Your task to perform on an android device: turn off location Image 0: 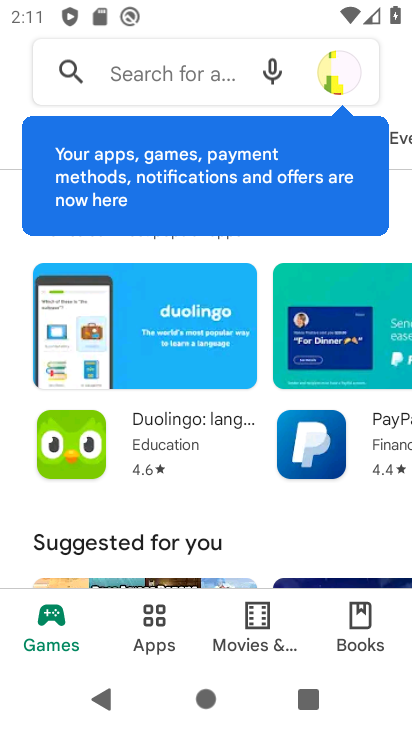
Step 0: press home button
Your task to perform on an android device: turn off location Image 1: 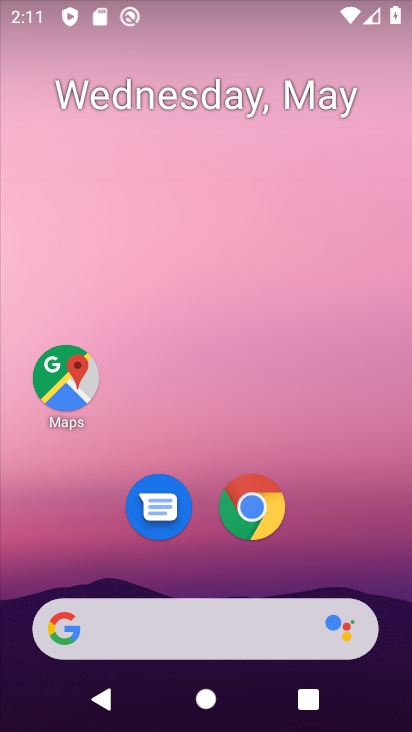
Step 1: drag from (389, 526) to (362, 187)
Your task to perform on an android device: turn off location Image 2: 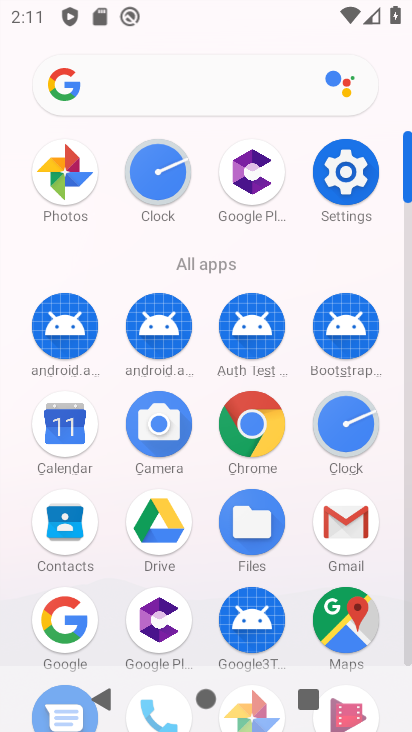
Step 2: click (345, 187)
Your task to perform on an android device: turn off location Image 3: 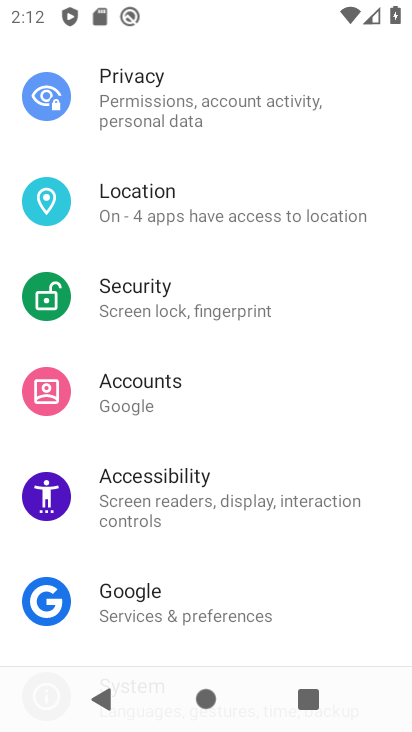
Step 3: click (175, 214)
Your task to perform on an android device: turn off location Image 4: 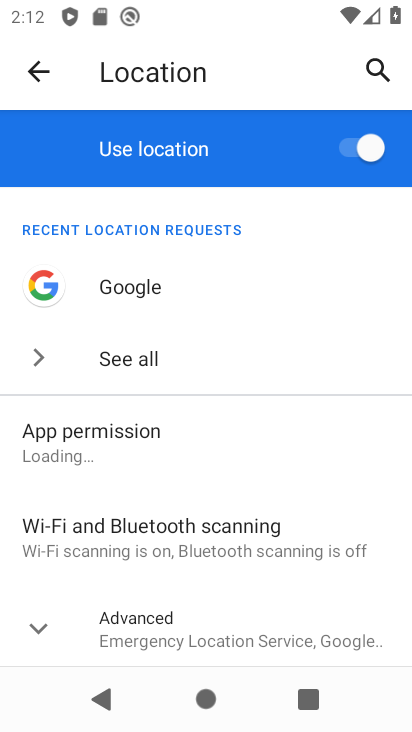
Step 4: click (352, 151)
Your task to perform on an android device: turn off location Image 5: 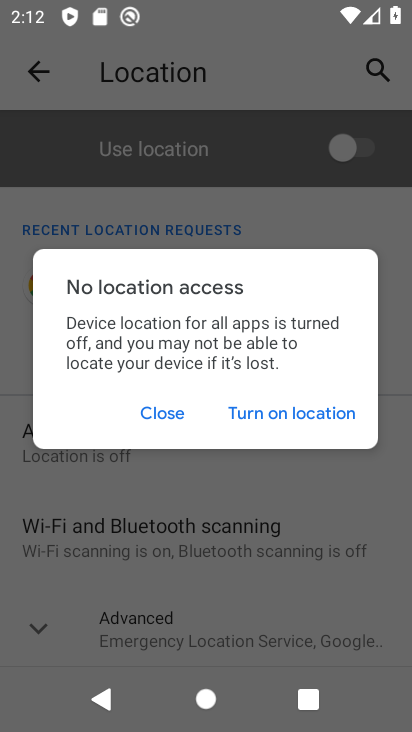
Step 5: task complete